Your task to perform on an android device: Open the calendar app, open the side menu, and click the "Day" option Image 0: 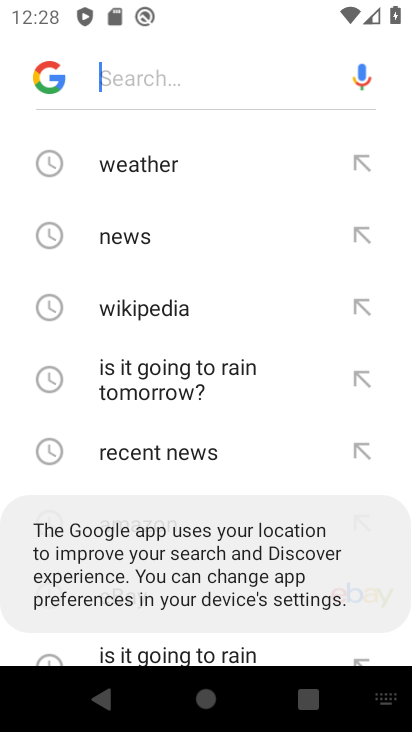
Step 0: press home button
Your task to perform on an android device: Open the calendar app, open the side menu, and click the "Day" option Image 1: 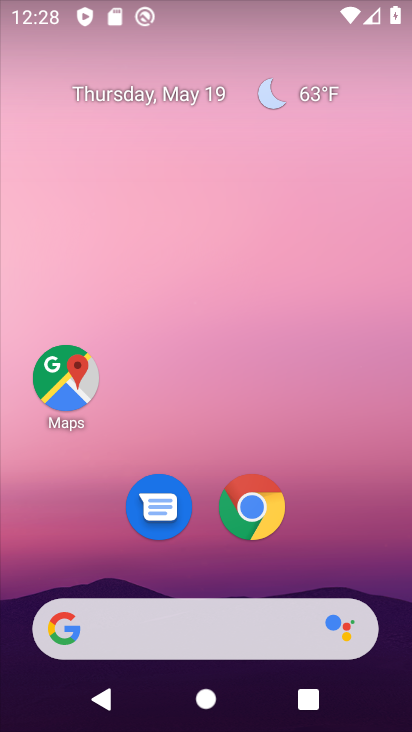
Step 1: drag from (126, 576) to (147, 153)
Your task to perform on an android device: Open the calendar app, open the side menu, and click the "Day" option Image 2: 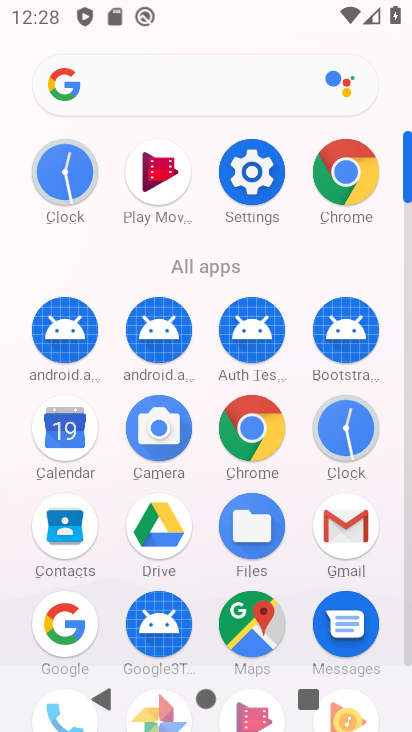
Step 2: click (72, 446)
Your task to perform on an android device: Open the calendar app, open the side menu, and click the "Day" option Image 3: 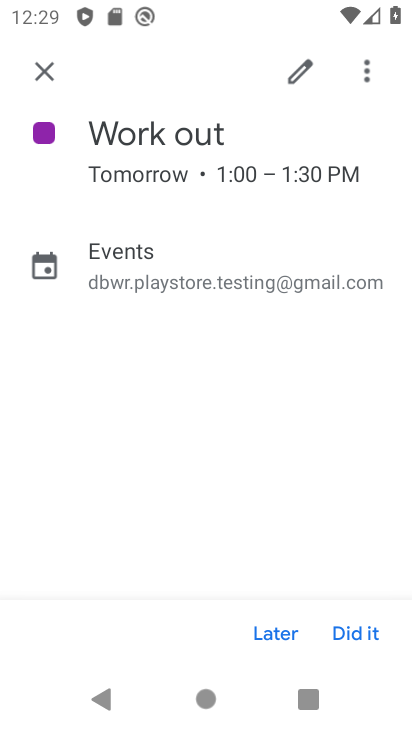
Step 3: click (55, 69)
Your task to perform on an android device: Open the calendar app, open the side menu, and click the "Day" option Image 4: 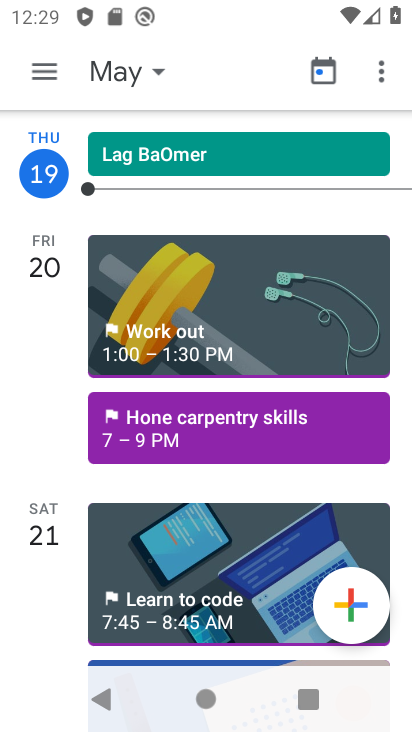
Step 4: click (50, 72)
Your task to perform on an android device: Open the calendar app, open the side menu, and click the "Day" option Image 5: 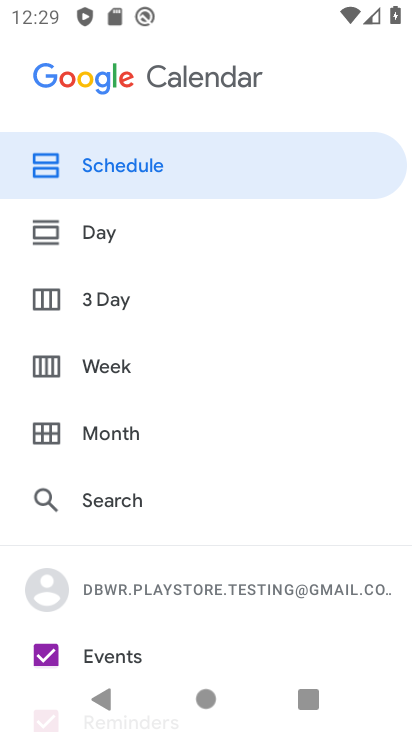
Step 5: click (86, 226)
Your task to perform on an android device: Open the calendar app, open the side menu, and click the "Day" option Image 6: 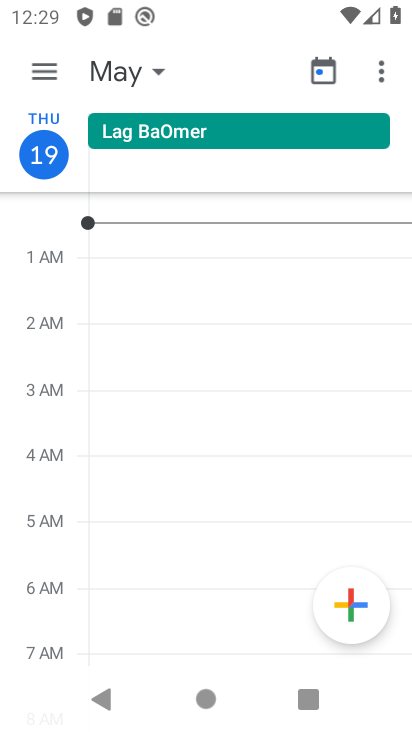
Step 6: task complete